Your task to perform on an android device: search for starred emails in the gmail app Image 0: 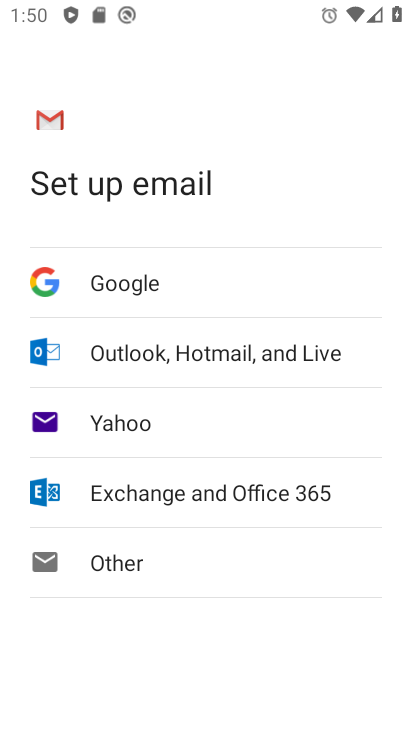
Step 0: press home button
Your task to perform on an android device: search for starred emails in the gmail app Image 1: 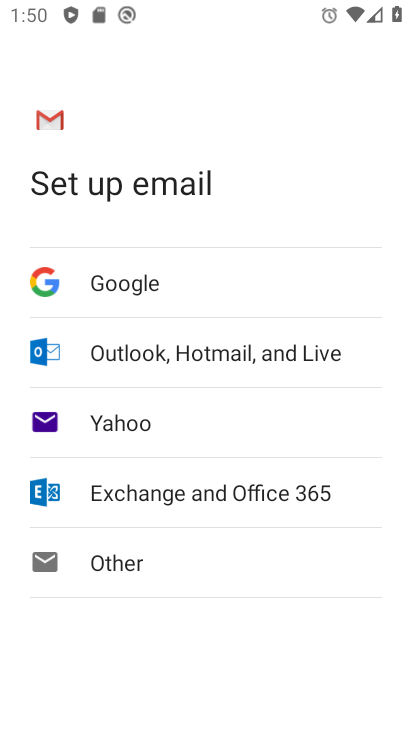
Step 1: press home button
Your task to perform on an android device: search for starred emails in the gmail app Image 2: 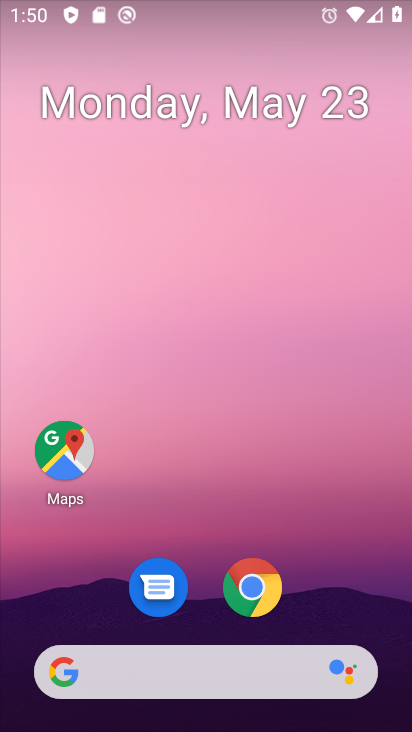
Step 2: drag from (356, 612) to (314, 299)
Your task to perform on an android device: search for starred emails in the gmail app Image 3: 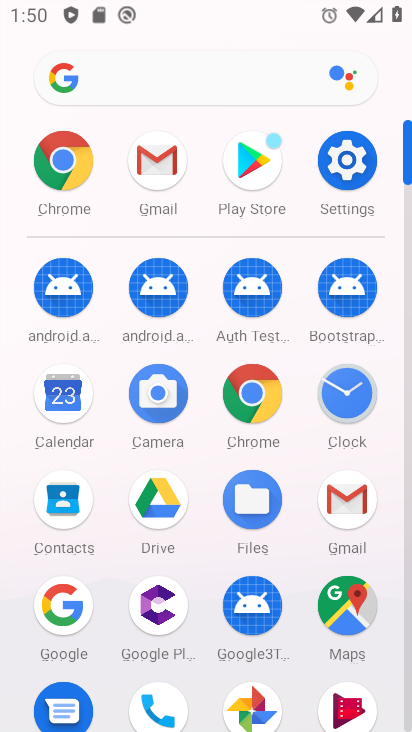
Step 3: click (325, 168)
Your task to perform on an android device: search for starred emails in the gmail app Image 4: 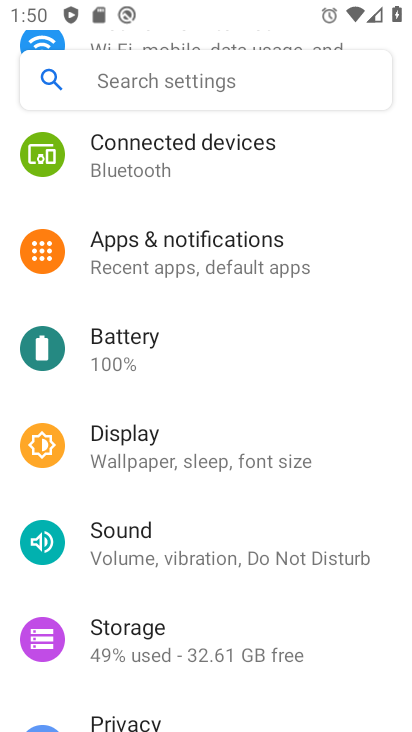
Step 4: press home button
Your task to perform on an android device: search for starred emails in the gmail app Image 5: 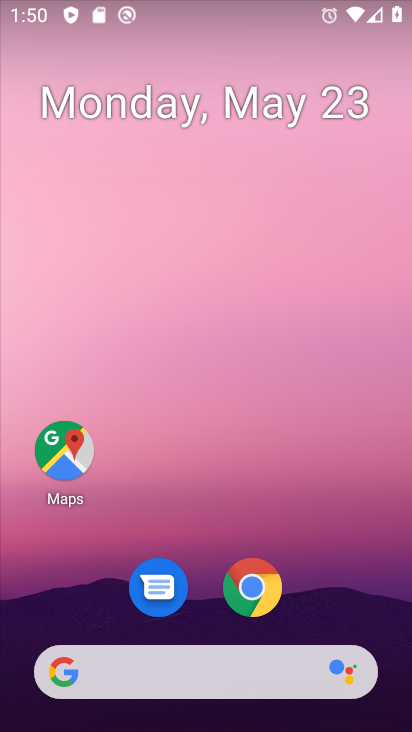
Step 5: drag from (367, 548) to (315, 226)
Your task to perform on an android device: search for starred emails in the gmail app Image 6: 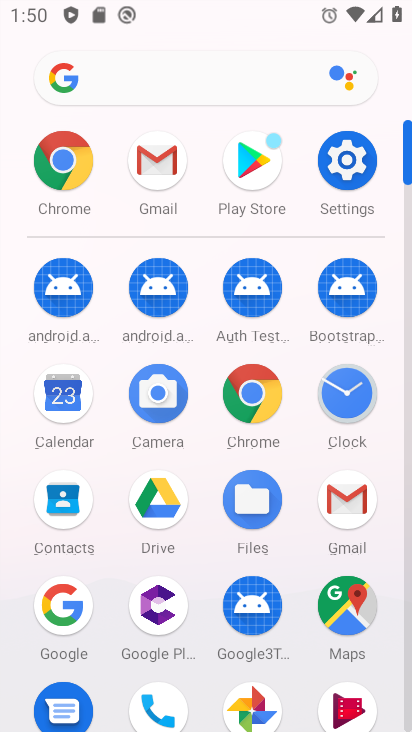
Step 6: click (326, 509)
Your task to perform on an android device: search for starred emails in the gmail app Image 7: 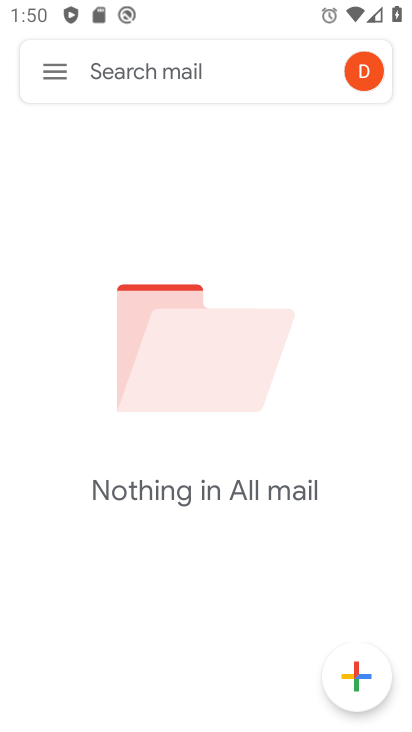
Step 7: click (77, 73)
Your task to perform on an android device: search for starred emails in the gmail app Image 8: 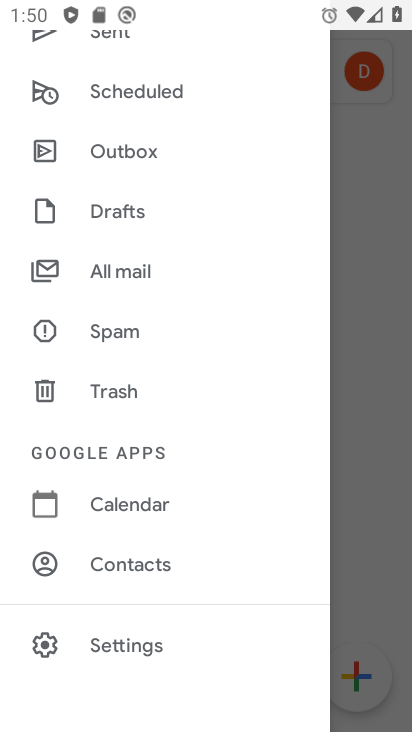
Step 8: task complete